Your task to perform on an android device: read, delete, or share a saved page in the chrome app Image 0: 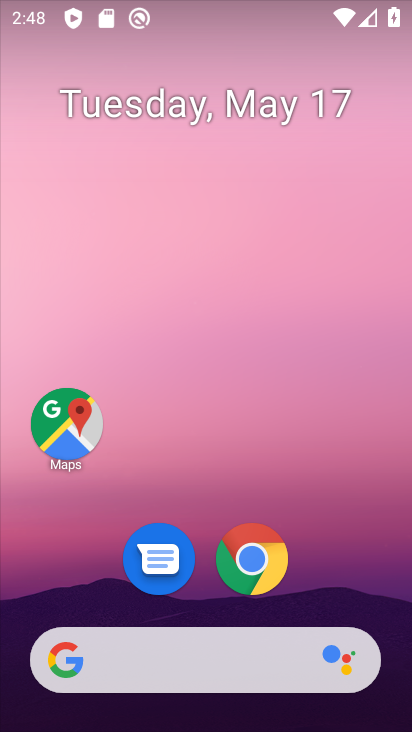
Step 0: click (262, 571)
Your task to perform on an android device: read, delete, or share a saved page in the chrome app Image 1: 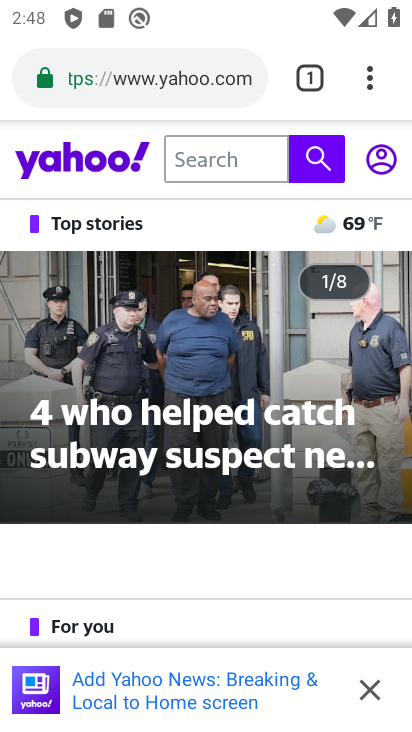
Step 1: click (373, 104)
Your task to perform on an android device: read, delete, or share a saved page in the chrome app Image 2: 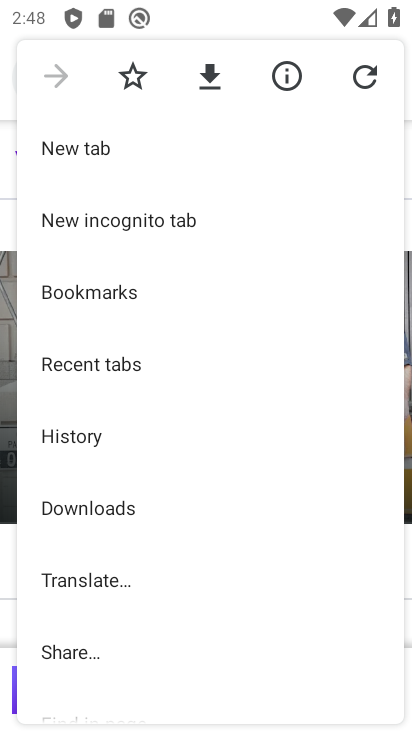
Step 2: click (175, 513)
Your task to perform on an android device: read, delete, or share a saved page in the chrome app Image 3: 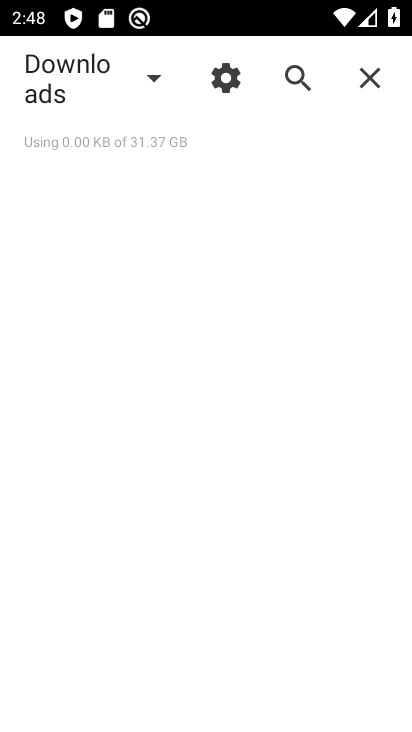
Step 3: click (151, 69)
Your task to perform on an android device: read, delete, or share a saved page in the chrome app Image 4: 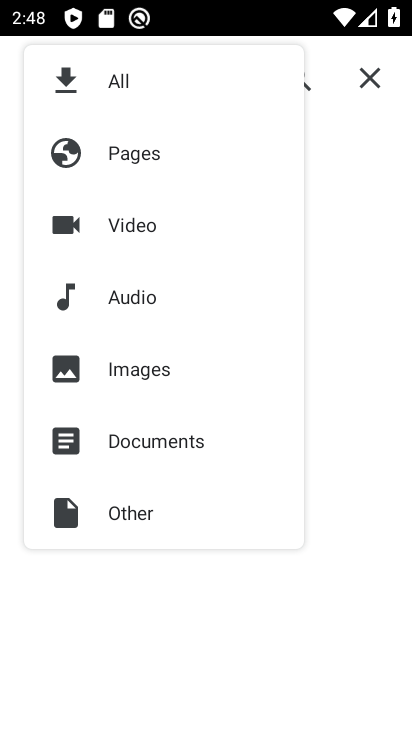
Step 4: click (171, 160)
Your task to perform on an android device: read, delete, or share a saved page in the chrome app Image 5: 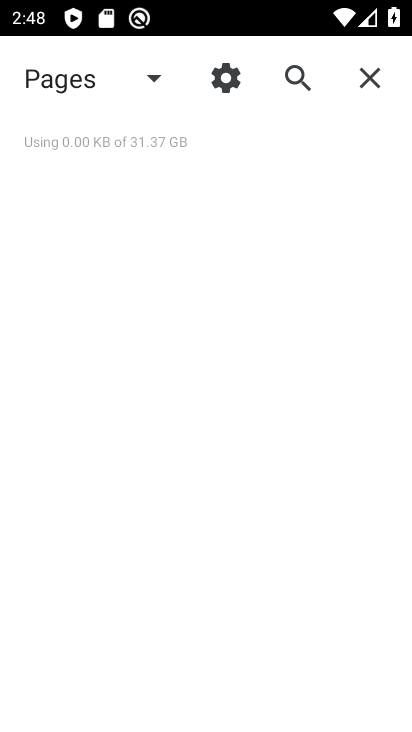
Step 5: task complete